Your task to perform on an android device: toggle data saver in the chrome app Image 0: 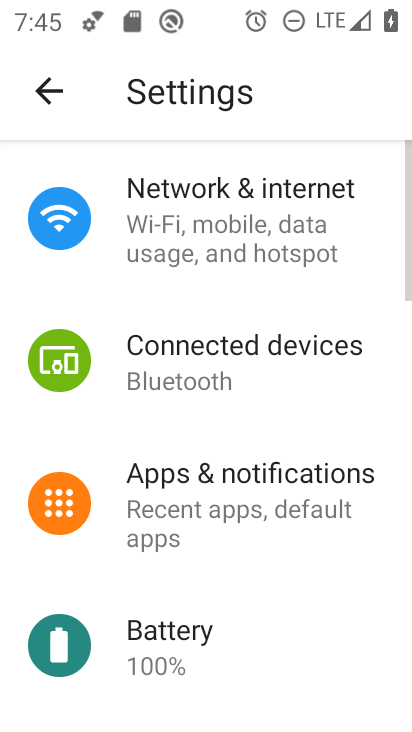
Step 0: press home button
Your task to perform on an android device: toggle data saver in the chrome app Image 1: 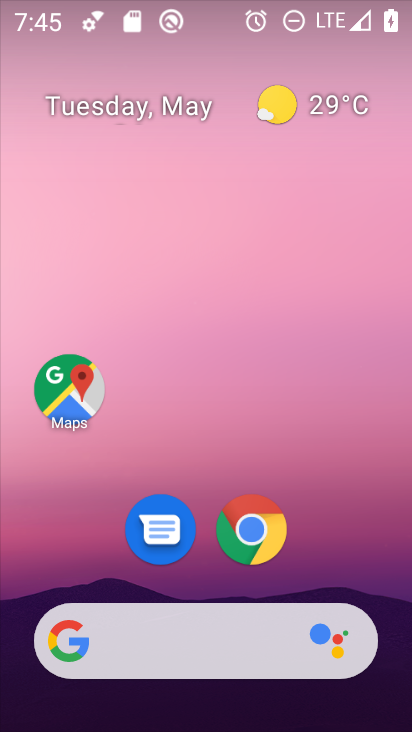
Step 1: drag from (382, 664) to (308, 97)
Your task to perform on an android device: toggle data saver in the chrome app Image 2: 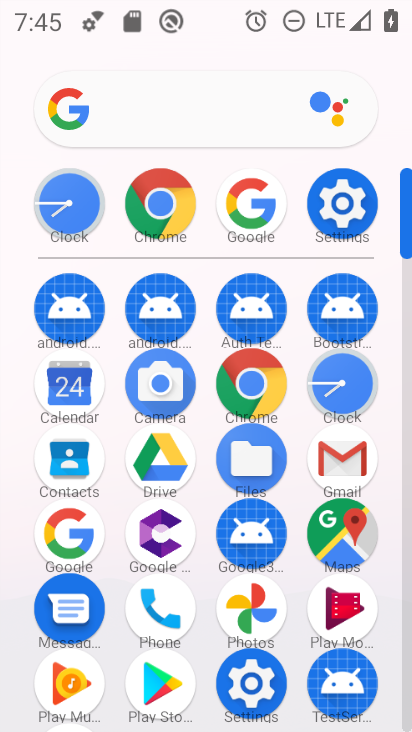
Step 2: click (161, 215)
Your task to perform on an android device: toggle data saver in the chrome app Image 3: 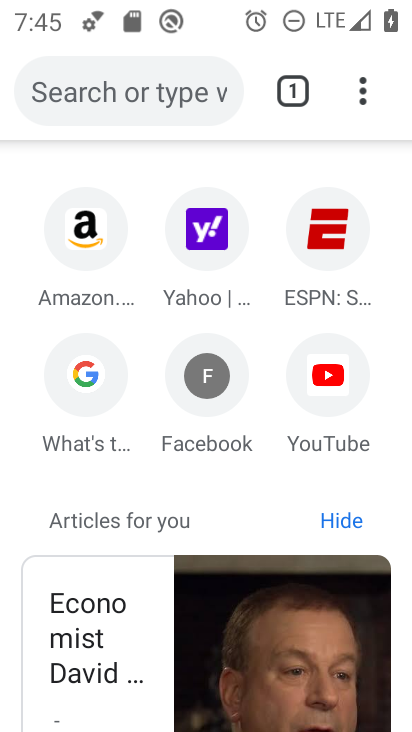
Step 3: click (368, 85)
Your task to perform on an android device: toggle data saver in the chrome app Image 4: 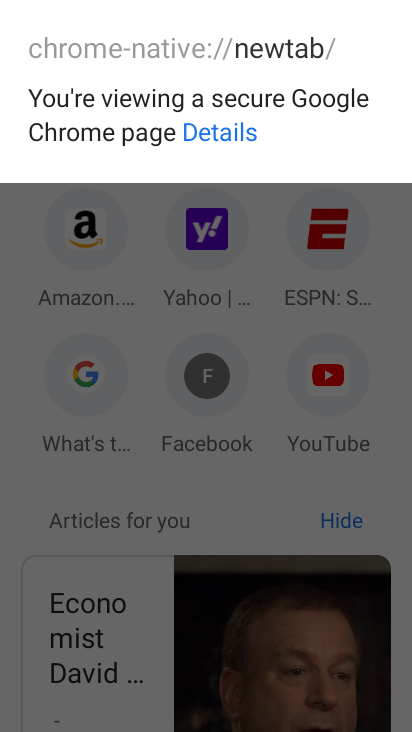
Step 4: press back button
Your task to perform on an android device: toggle data saver in the chrome app Image 5: 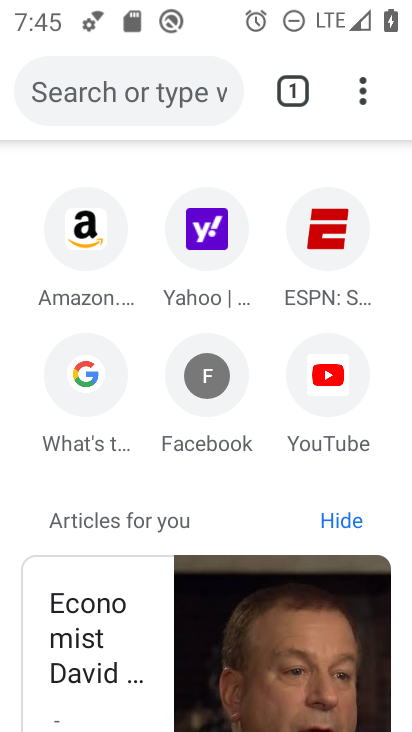
Step 5: click (353, 89)
Your task to perform on an android device: toggle data saver in the chrome app Image 6: 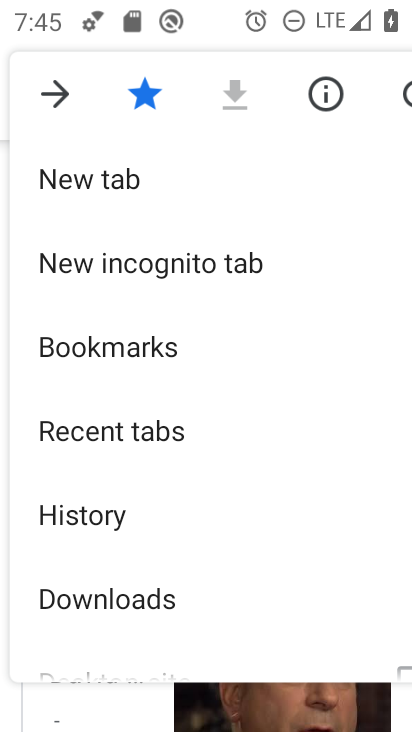
Step 6: drag from (269, 616) to (244, 172)
Your task to perform on an android device: toggle data saver in the chrome app Image 7: 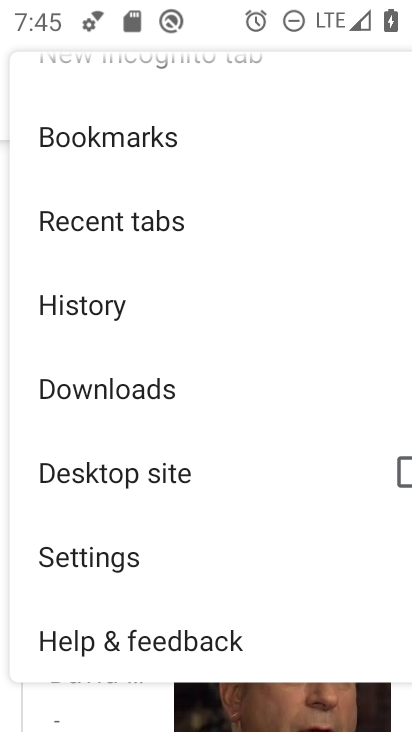
Step 7: click (180, 528)
Your task to perform on an android device: toggle data saver in the chrome app Image 8: 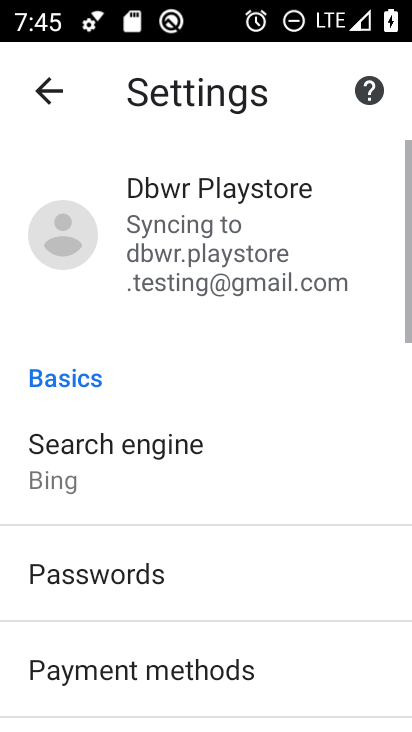
Step 8: drag from (179, 662) to (202, 149)
Your task to perform on an android device: toggle data saver in the chrome app Image 9: 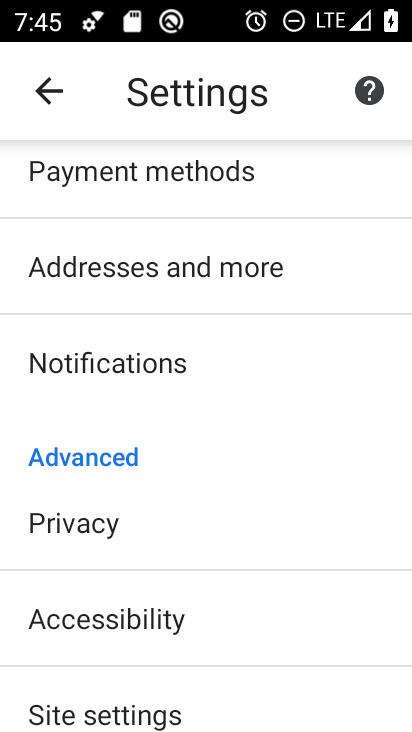
Step 9: drag from (167, 650) to (192, 242)
Your task to perform on an android device: toggle data saver in the chrome app Image 10: 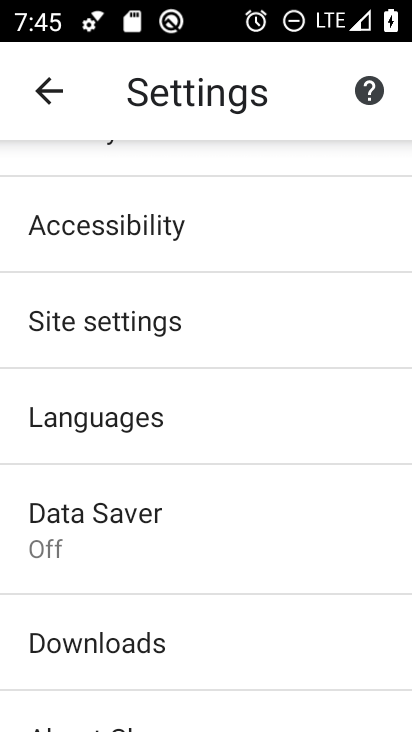
Step 10: click (187, 518)
Your task to perform on an android device: toggle data saver in the chrome app Image 11: 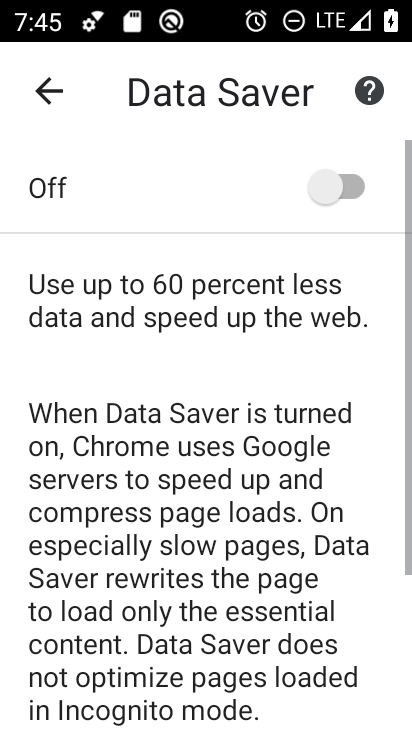
Step 11: click (317, 167)
Your task to perform on an android device: toggle data saver in the chrome app Image 12: 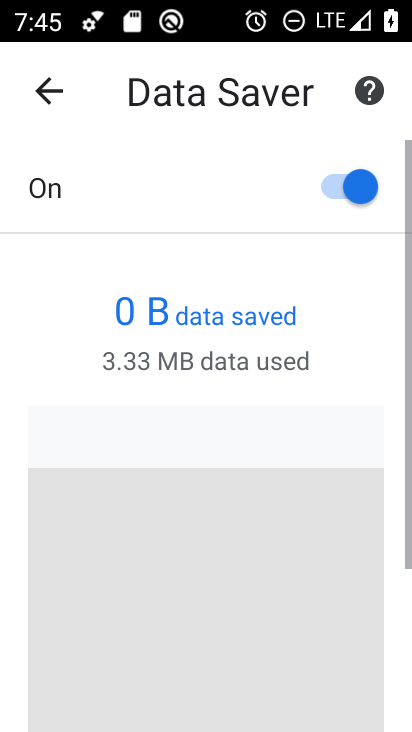
Step 12: task complete